Your task to perform on an android device: set the stopwatch Image 0: 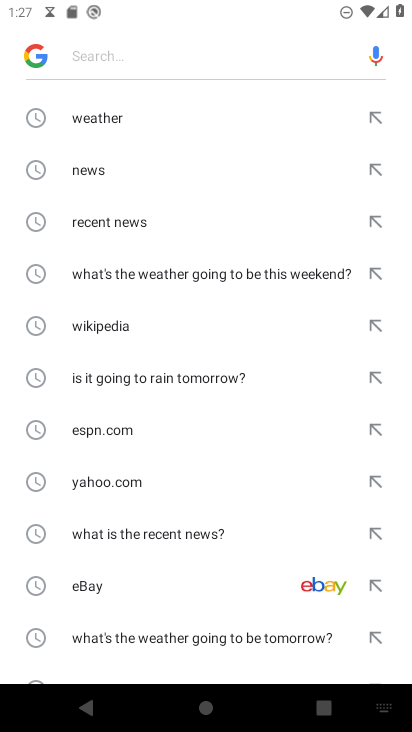
Step 0: press back button
Your task to perform on an android device: set the stopwatch Image 1: 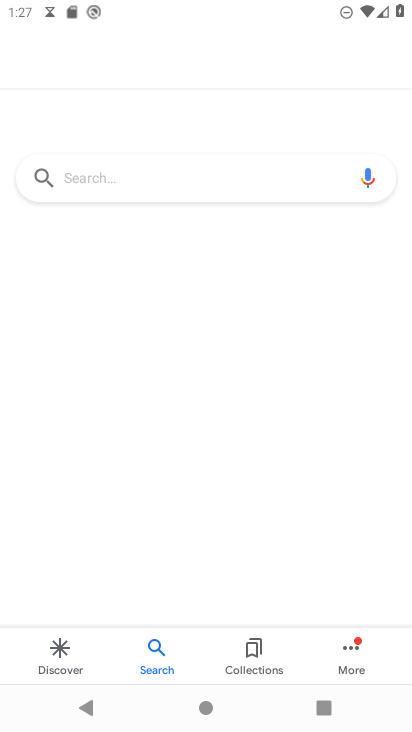
Step 1: click (346, 656)
Your task to perform on an android device: set the stopwatch Image 2: 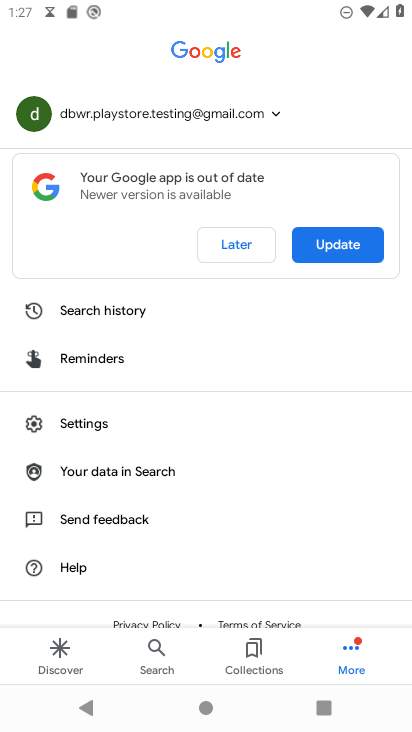
Step 2: press back button
Your task to perform on an android device: set the stopwatch Image 3: 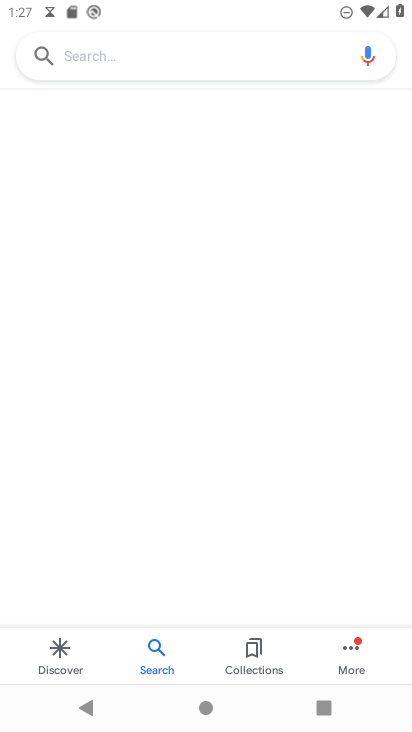
Step 3: press back button
Your task to perform on an android device: set the stopwatch Image 4: 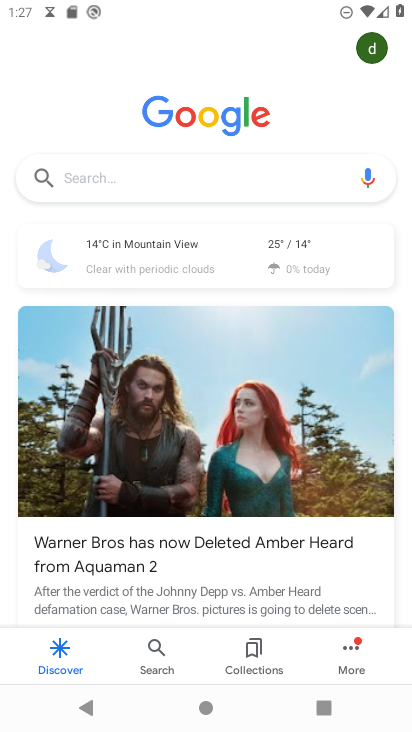
Step 4: press back button
Your task to perform on an android device: set the stopwatch Image 5: 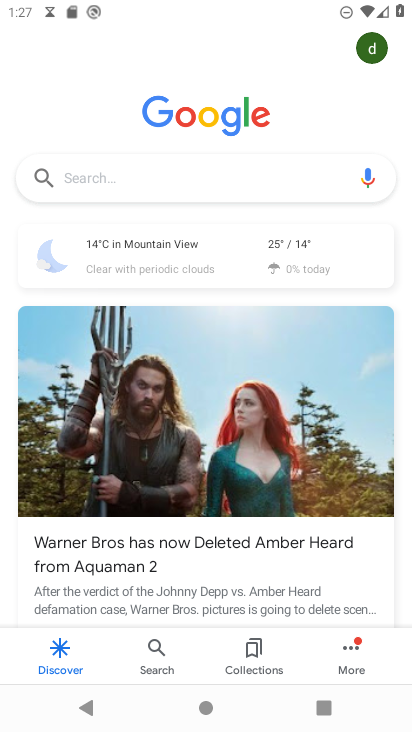
Step 5: press back button
Your task to perform on an android device: set the stopwatch Image 6: 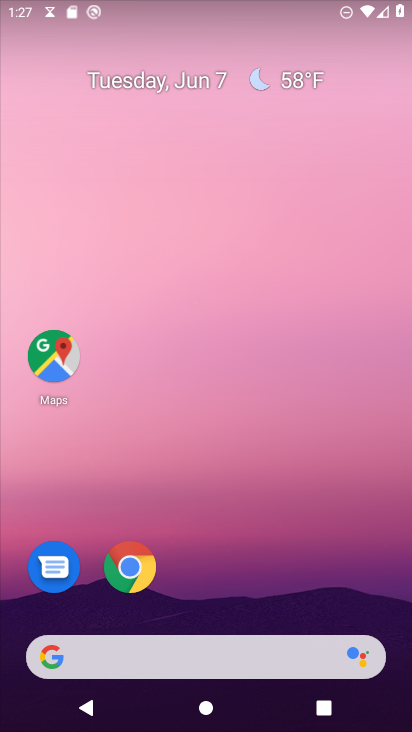
Step 6: drag from (384, 720) to (344, 66)
Your task to perform on an android device: set the stopwatch Image 7: 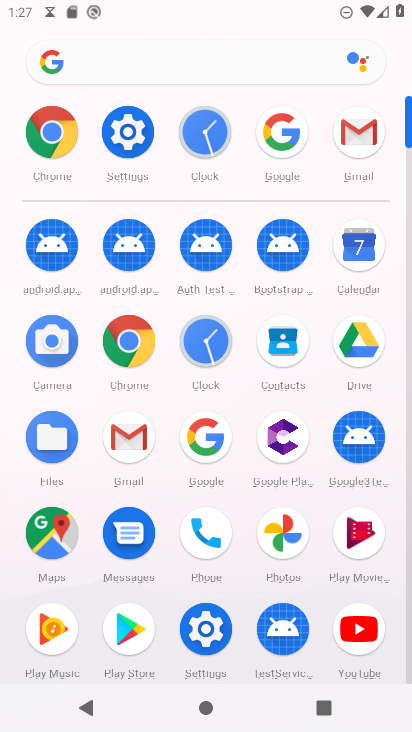
Step 7: click (133, 126)
Your task to perform on an android device: set the stopwatch Image 8: 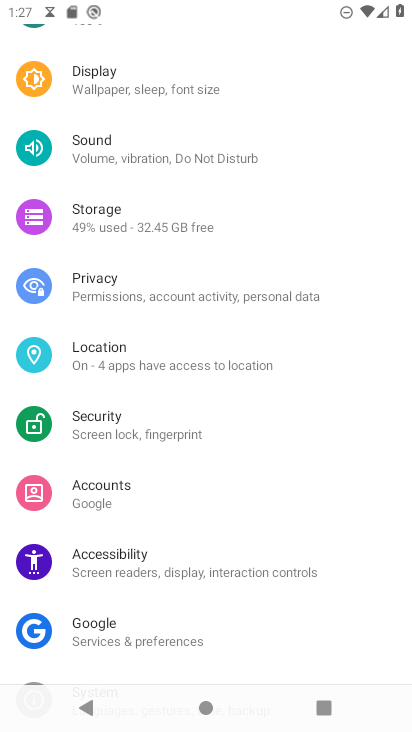
Step 8: press back button
Your task to perform on an android device: set the stopwatch Image 9: 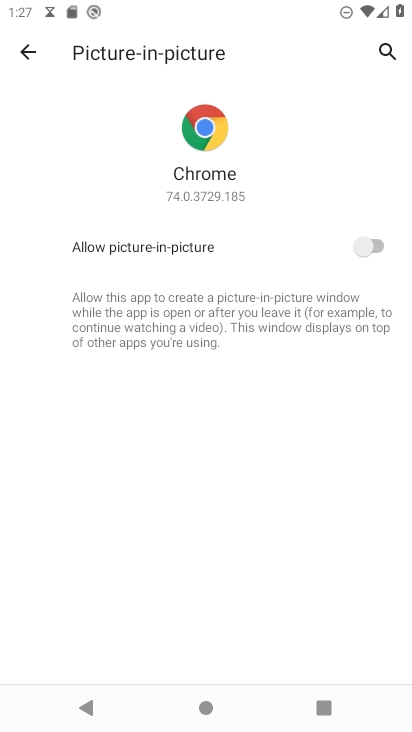
Step 9: press back button
Your task to perform on an android device: set the stopwatch Image 10: 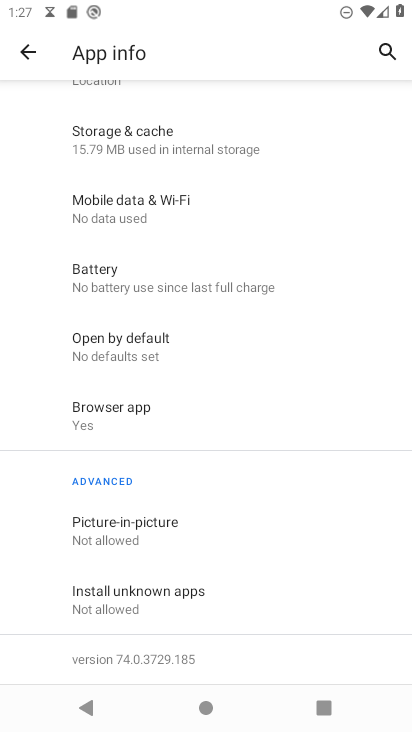
Step 10: press back button
Your task to perform on an android device: set the stopwatch Image 11: 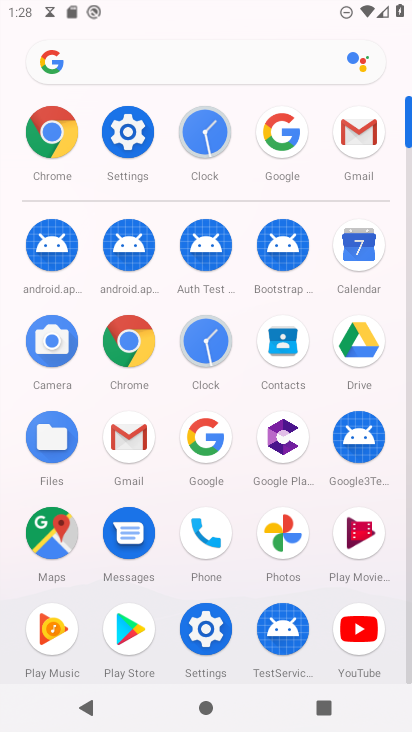
Step 11: click (208, 333)
Your task to perform on an android device: set the stopwatch Image 12: 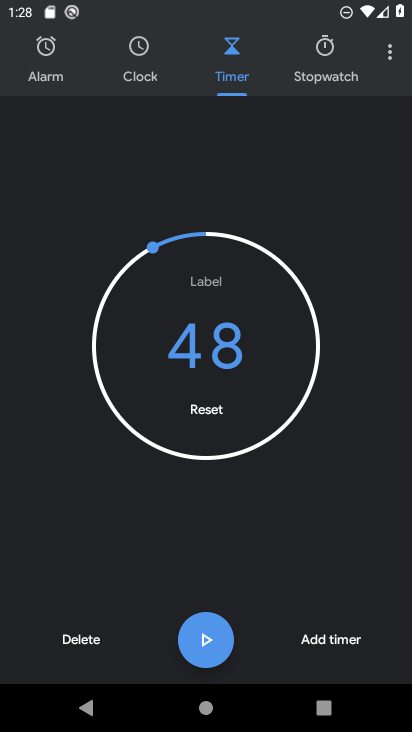
Step 12: click (76, 640)
Your task to perform on an android device: set the stopwatch Image 13: 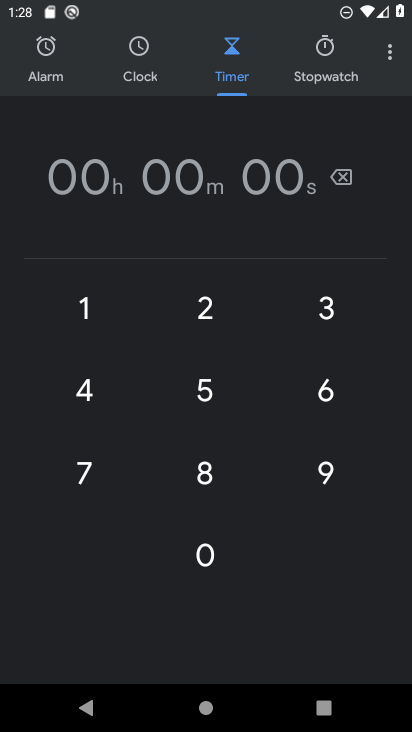
Step 13: click (334, 39)
Your task to perform on an android device: set the stopwatch Image 14: 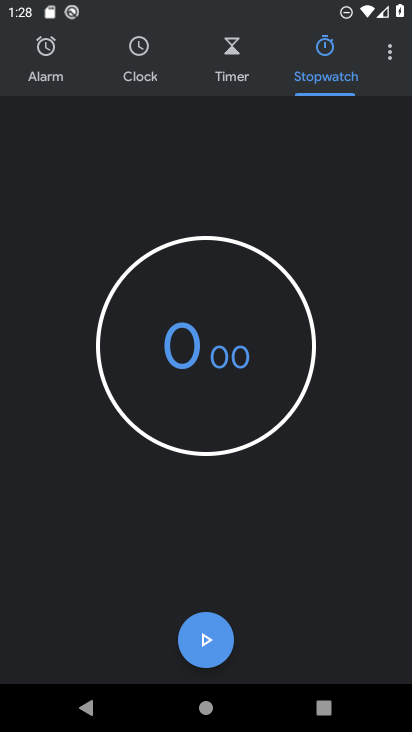
Step 14: click (192, 657)
Your task to perform on an android device: set the stopwatch Image 15: 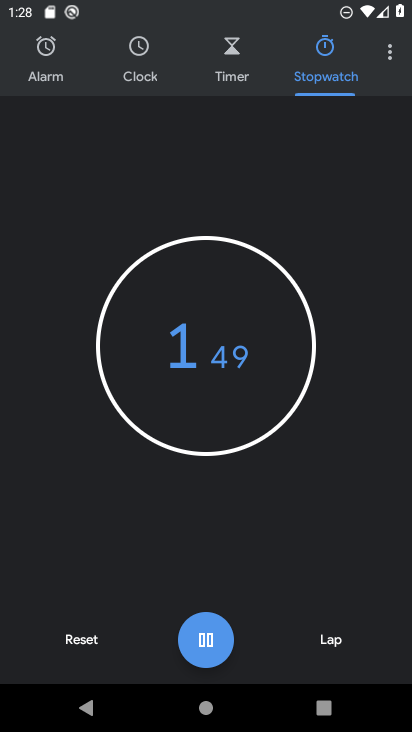
Step 15: task complete